Your task to perform on an android device: toggle improve location accuracy Image 0: 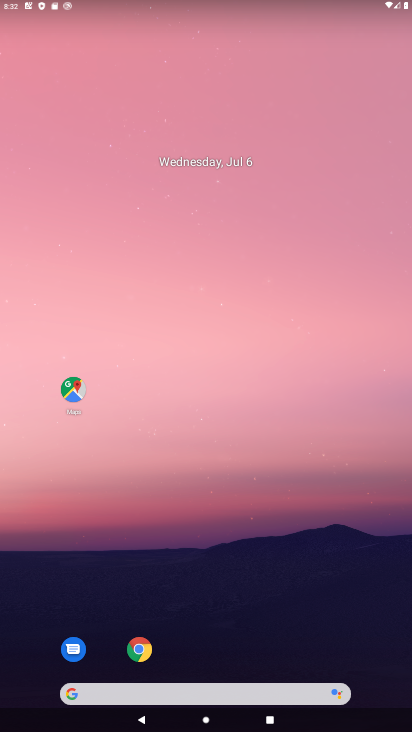
Step 0: click (282, 140)
Your task to perform on an android device: toggle improve location accuracy Image 1: 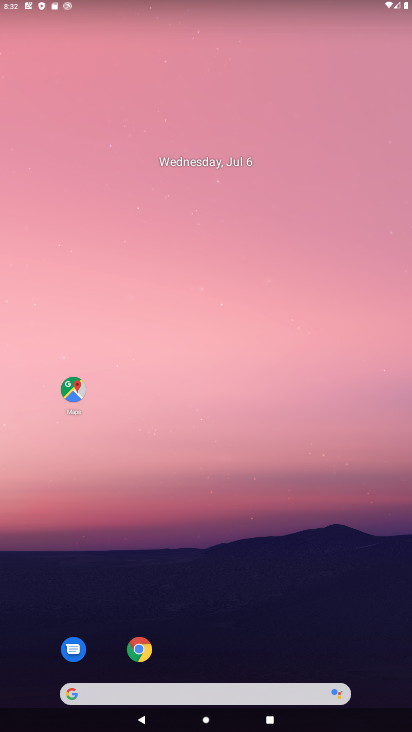
Step 1: drag from (240, 339) to (248, 197)
Your task to perform on an android device: toggle improve location accuracy Image 2: 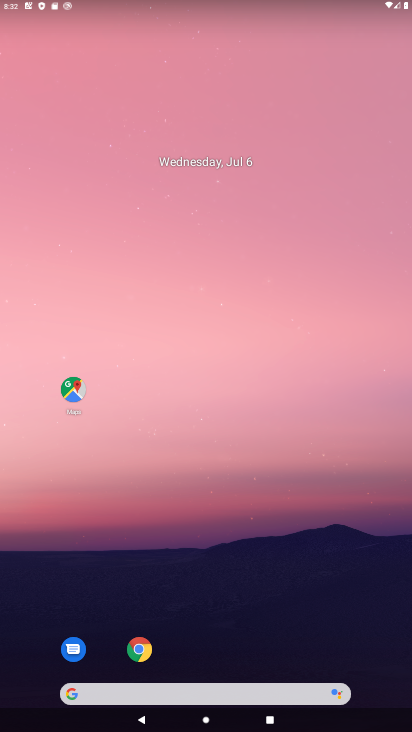
Step 2: drag from (214, 642) to (241, 287)
Your task to perform on an android device: toggle improve location accuracy Image 3: 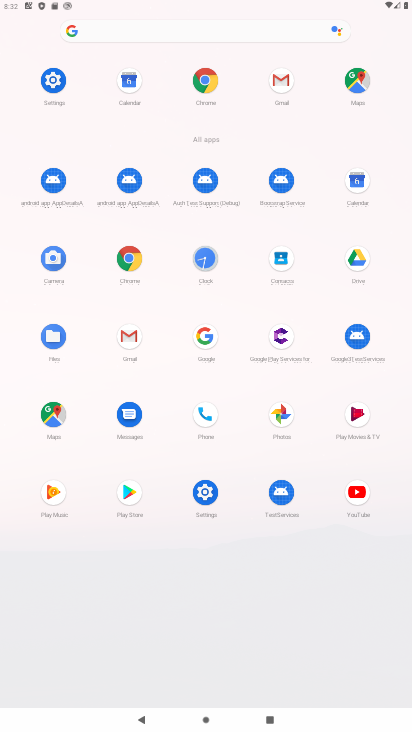
Step 3: click (212, 501)
Your task to perform on an android device: toggle improve location accuracy Image 4: 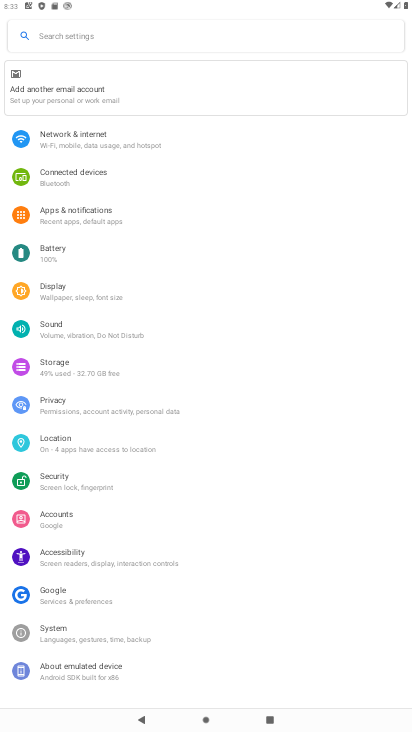
Step 4: click (106, 451)
Your task to perform on an android device: toggle improve location accuracy Image 5: 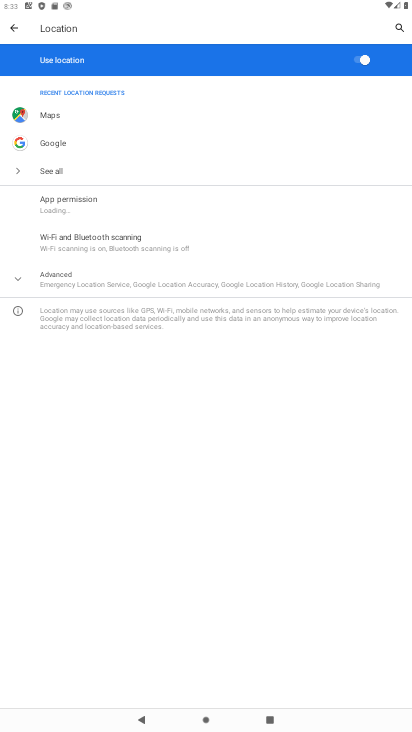
Step 5: click (82, 277)
Your task to perform on an android device: toggle improve location accuracy Image 6: 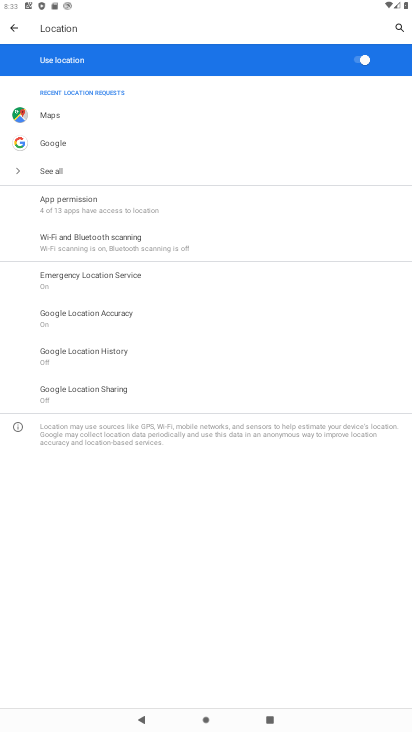
Step 6: click (126, 317)
Your task to perform on an android device: toggle improve location accuracy Image 7: 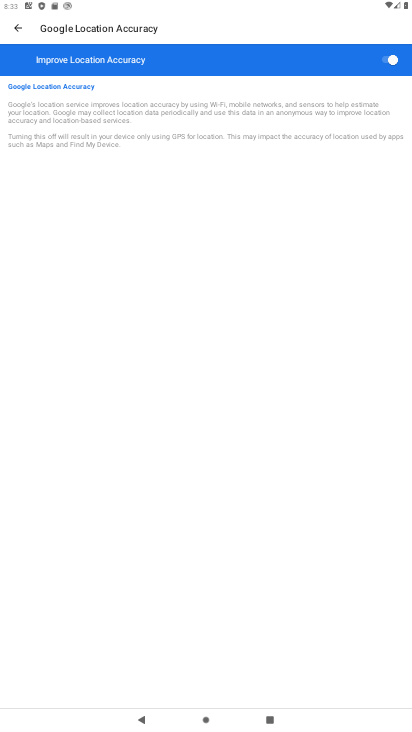
Step 7: click (375, 57)
Your task to perform on an android device: toggle improve location accuracy Image 8: 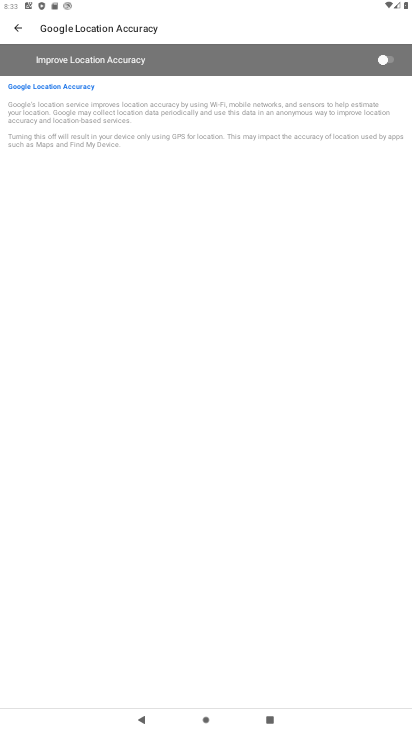
Step 8: task complete